Your task to perform on an android device: Show me productivity apps on the Play Store Image 0: 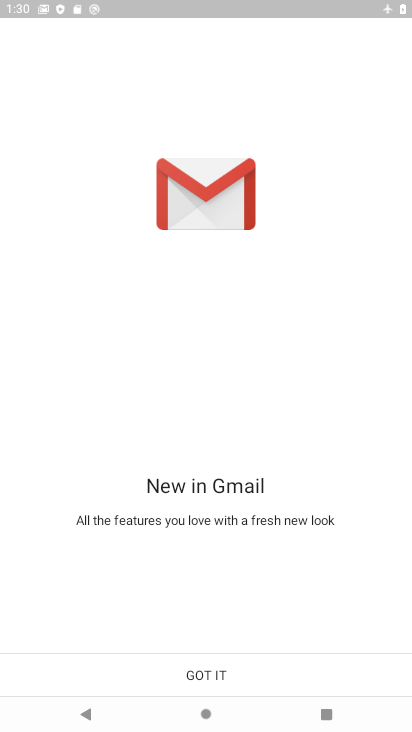
Step 0: press home button
Your task to perform on an android device: Show me productivity apps on the Play Store Image 1: 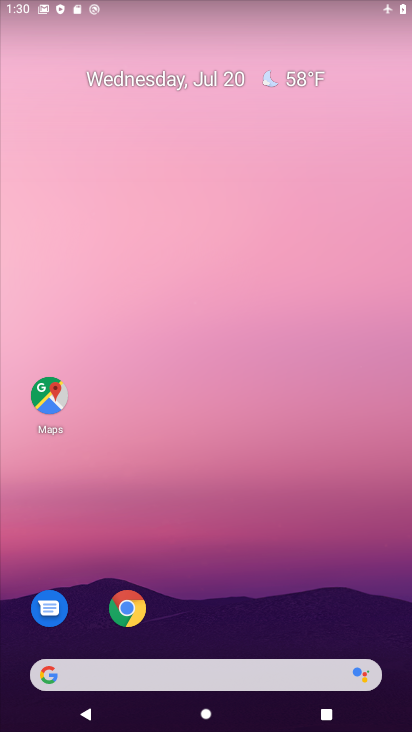
Step 1: drag from (235, 673) to (229, 198)
Your task to perform on an android device: Show me productivity apps on the Play Store Image 2: 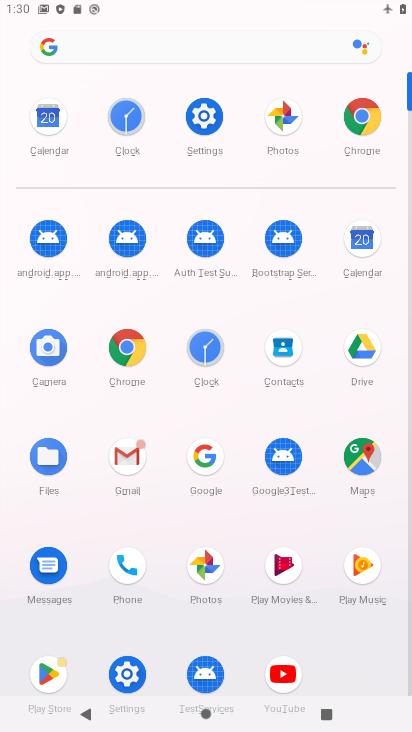
Step 2: click (43, 668)
Your task to perform on an android device: Show me productivity apps on the Play Store Image 3: 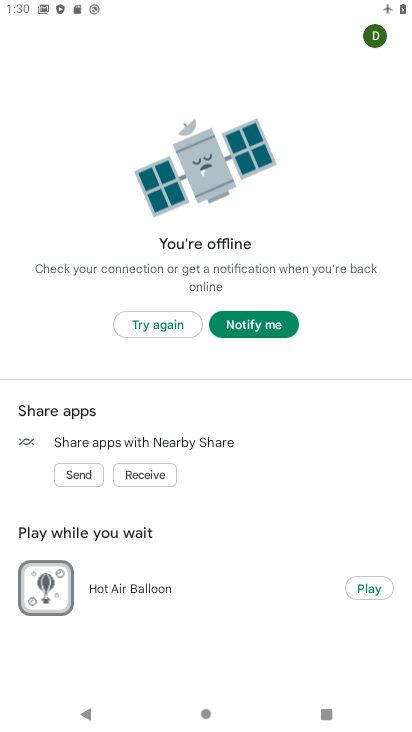
Step 3: task complete